Your task to perform on an android device: turn vacation reply on in the gmail app Image 0: 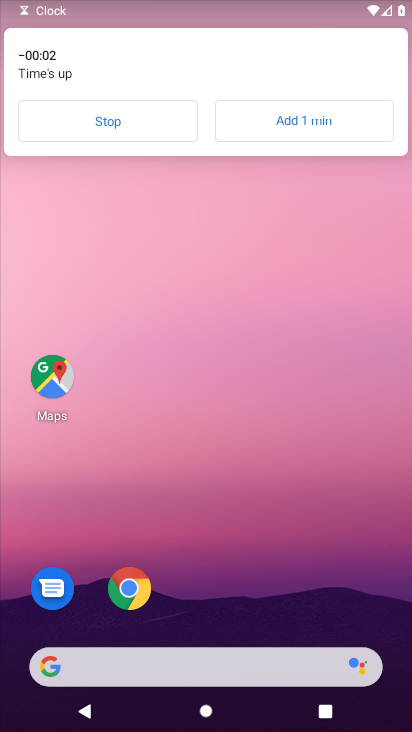
Step 0: press home button
Your task to perform on an android device: turn vacation reply on in the gmail app Image 1: 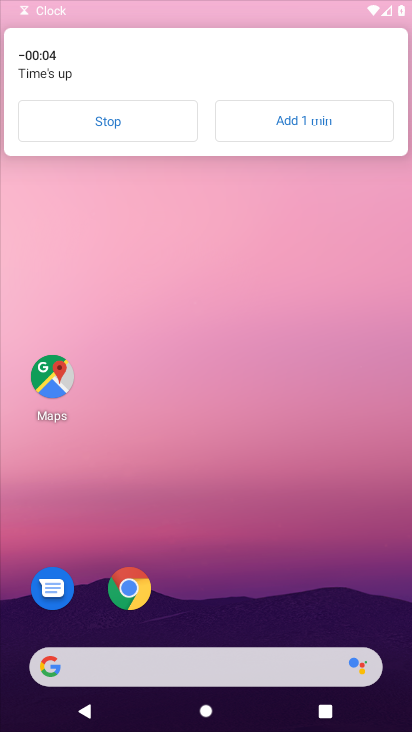
Step 1: click (111, 115)
Your task to perform on an android device: turn vacation reply on in the gmail app Image 2: 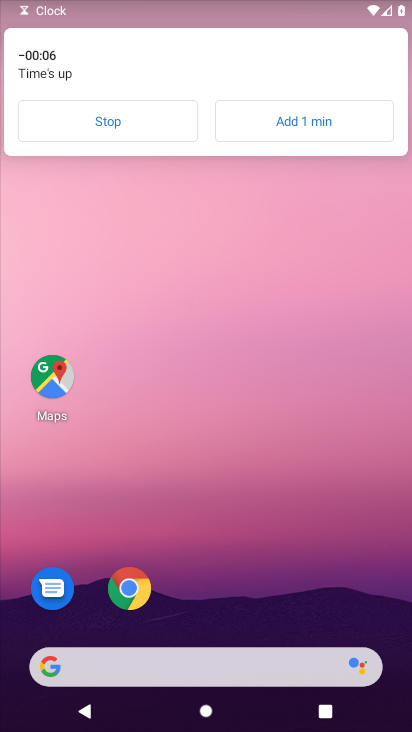
Step 2: drag from (258, 511) to (224, 151)
Your task to perform on an android device: turn vacation reply on in the gmail app Image 3: 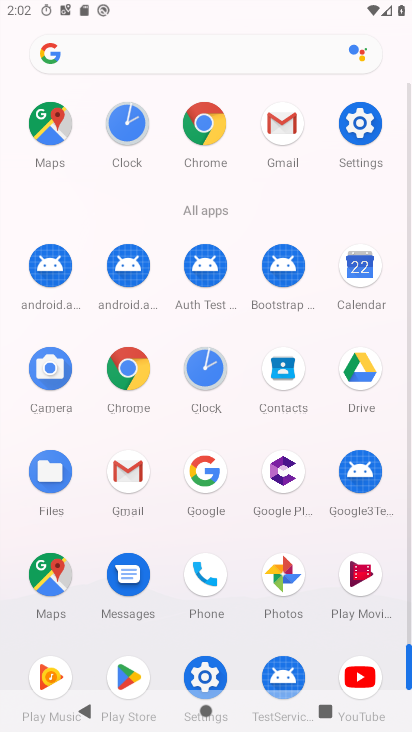
Step 3: click (112, 460)
Your task to perform on an android device: turn vacation reply on in the gmail app Image 4: 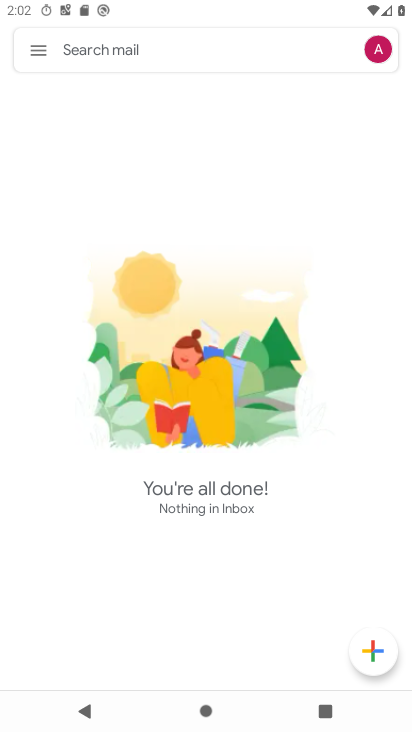
Step 4: click (40, 48)
Your task to perform on an android device: turn vacation reply on in the gmail app Image 5: 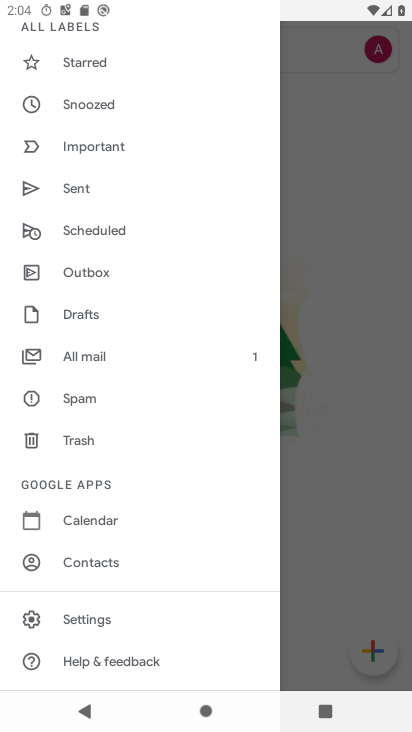
Step 5: click (94, 625)
Your task to perform on an android device: turn vacation reply on in the gmail app Image 6: 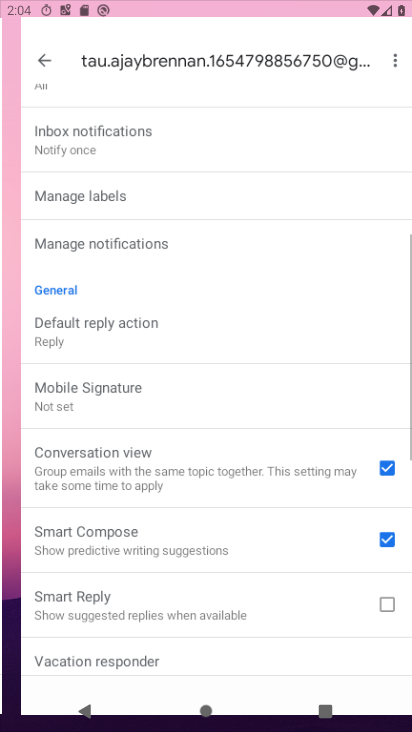
Step 6: drag from (94, 625) to (248, 210)
Your task to perform on an android device: turn vacation reply on in the gmail app Image 7: 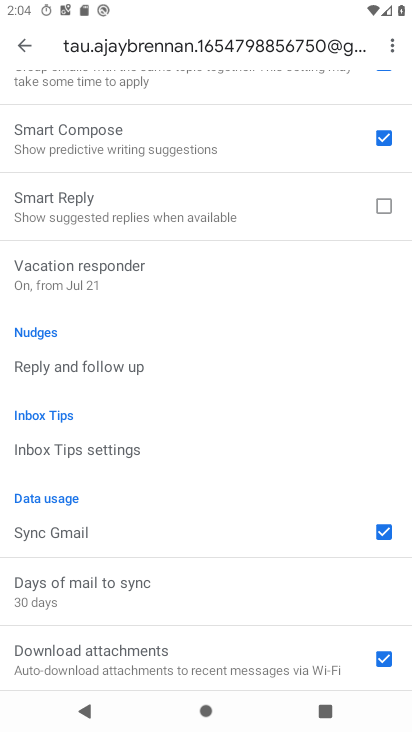
Step 7: click (154, 250)
Your task to perform on an android device: turn vacation reply on in the gmail app Image 8: 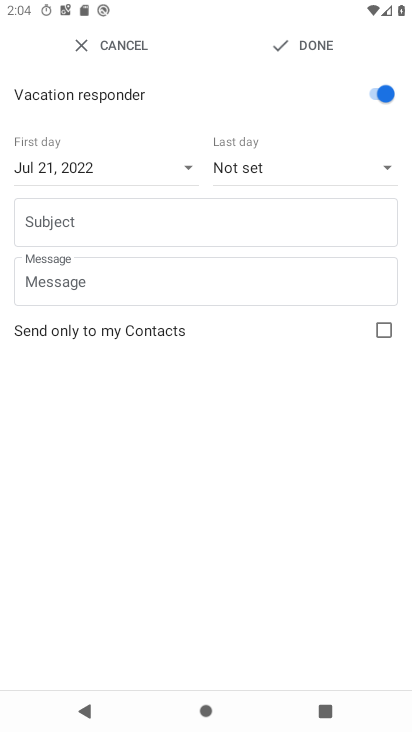
Step 8: click (239, 164)
Your task to perform on an android device: turn vacation reply on in the gmail app Image 9: 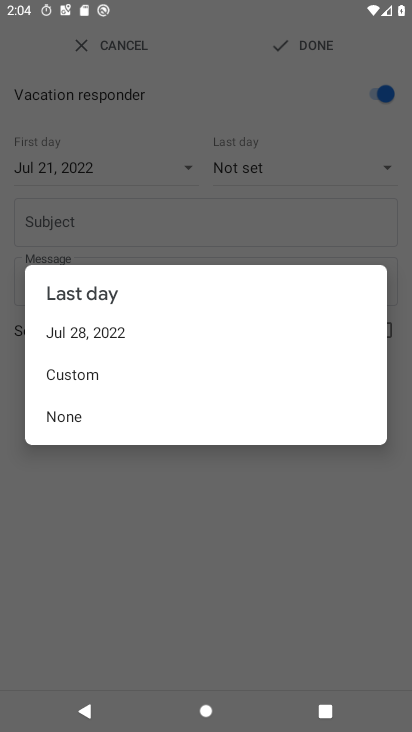
Step 9: click (90, 323)
Your task to perform on an android device: turn vacation reply on in the gmail app Image 10: 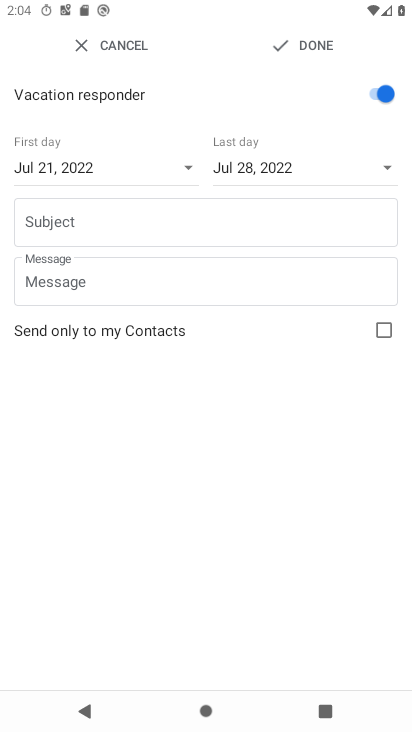
Step 10: click (112, 166)
Your task to perform on an android device: turn vacation reply on in the gmail app Image 11: 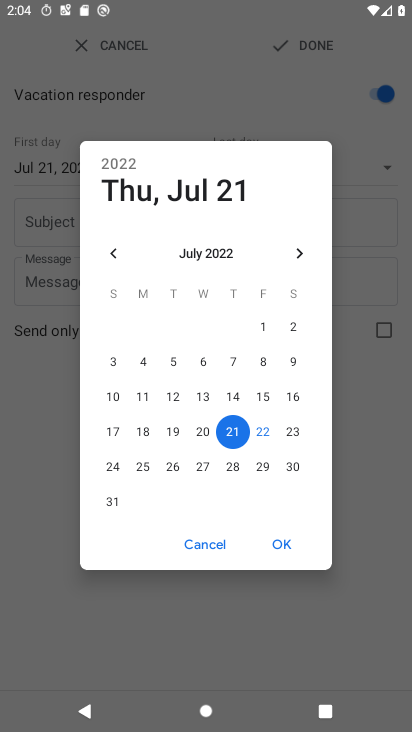
Step 11: click (264, 435)
Your task to perform on an android device: turn vacation reply on in the gmail app Image 12: 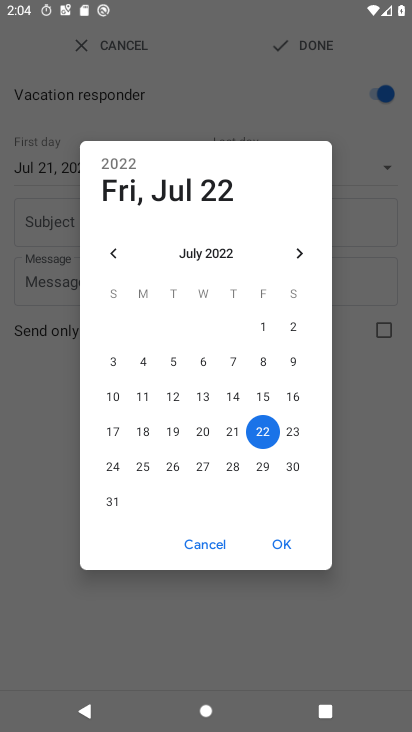
Step 12: click (289, 543)
Your task to perform on an android device: turn vacation reply on in the gmail app Image 13: 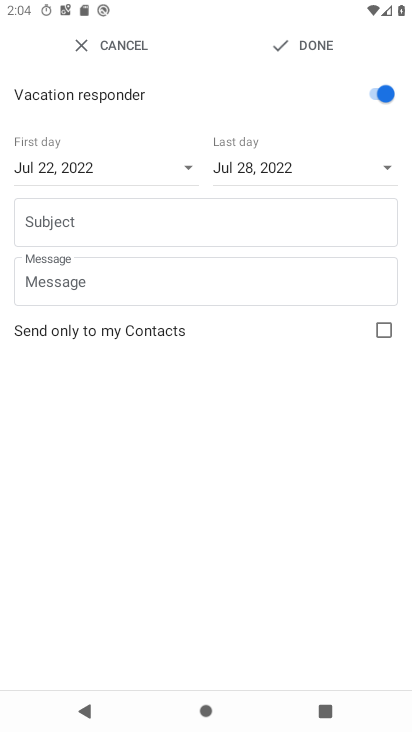
Step 13: click (216, 291)
Your task to perform on an android device: turn vacation reply on in the gmail app Image 14: 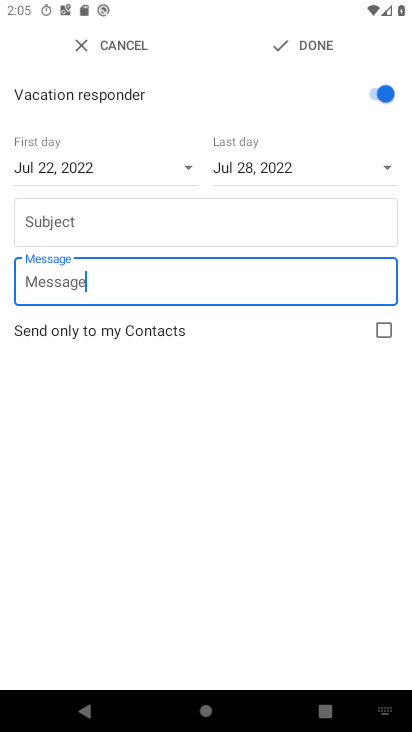
Step 14: type "iam okay:jake revu jason"
Your task to perform on an android device: turn vacation reply on in the gmail app Image 15: 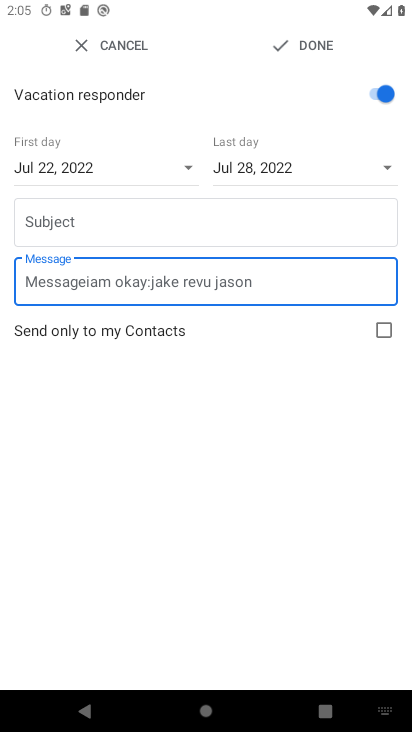
Step 15: click (86, 279)
Your task to perform on an android device: turn vacation reply on in the gmail app Image 16: 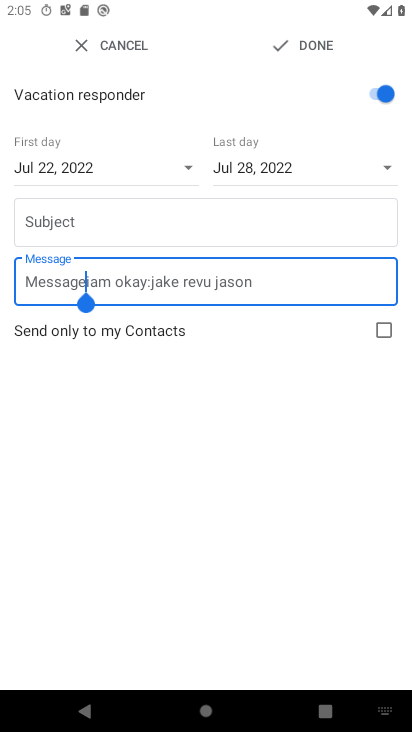
Step 16: click (86, 279)
Your task to perform on an android device: turn vacation reply on in the gmail app Image 17: 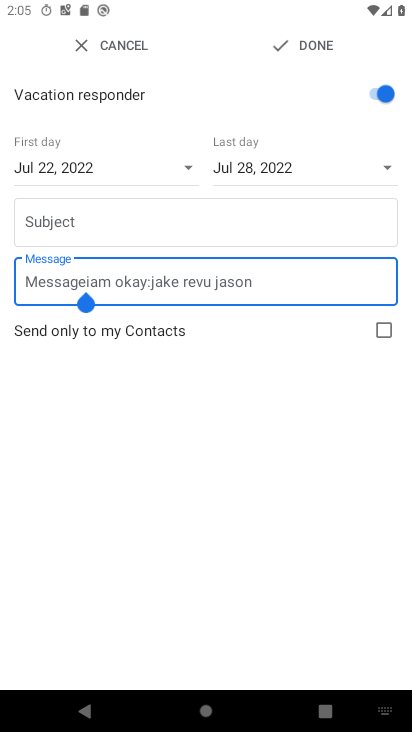
Step 17: click (127, 212)
Your task to perform on an android device: turn vacation reply on in the gmail app Image 18: 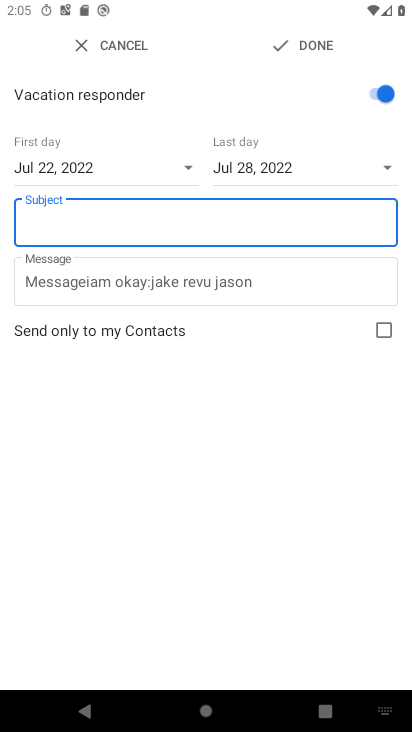
Step 18: type "ok;;"
Your task to perform on an android device: turn vacation reply on in the gmail app Image 19: 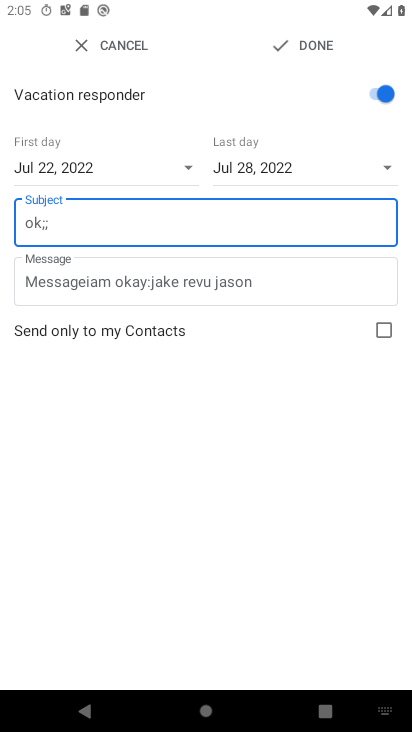
Step 19: click (261, 86)
Your task to perform on an android device: turn vacation reply on in the gmail app Image 20: 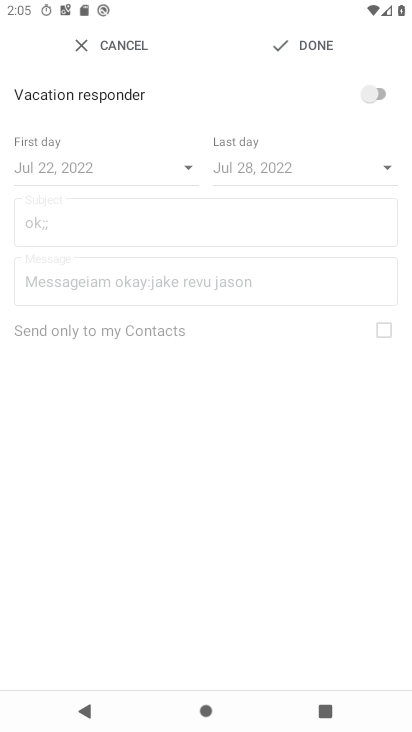
Step 20: click (365, 80)
Your task to perform on an android device: turn vacation reply on in the gmail app Image 21: 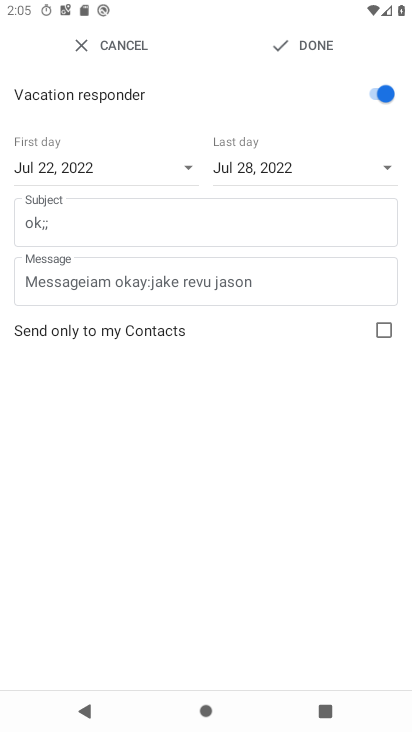
Step 21: click (327, 52)
Your task to perform on an android device: turn vacation reply on in the gmail app Image 22: 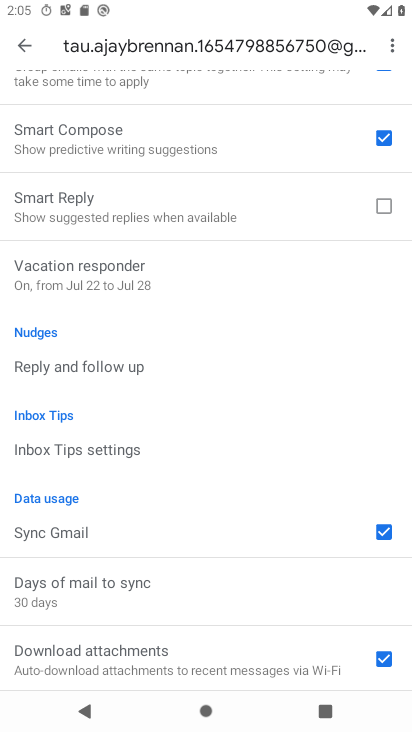
Step 22: task complete